Your task to perform on an android device: change the upload size in google photos Image 0: 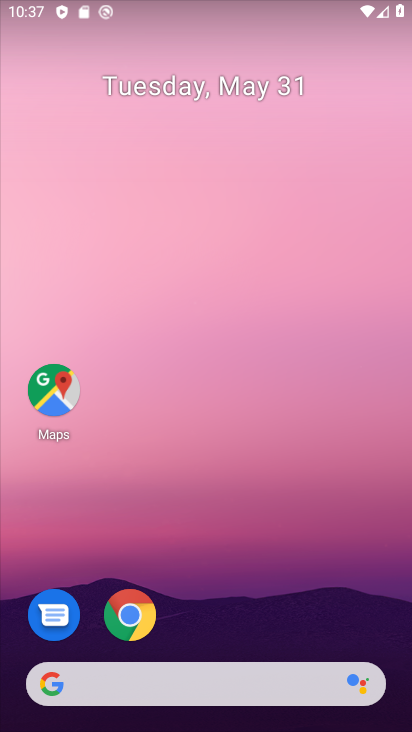
Step 0: drag from (210, 619) to (319, 75)
Your task to perform on an android device: change the upload size in google photos Image 1: 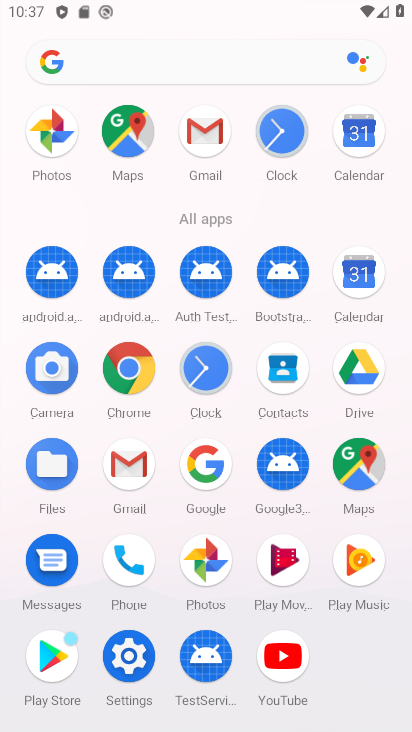
Step 1: click (209, 568)
Your task to perform on an android device: change the upload size in google photos Image 2: 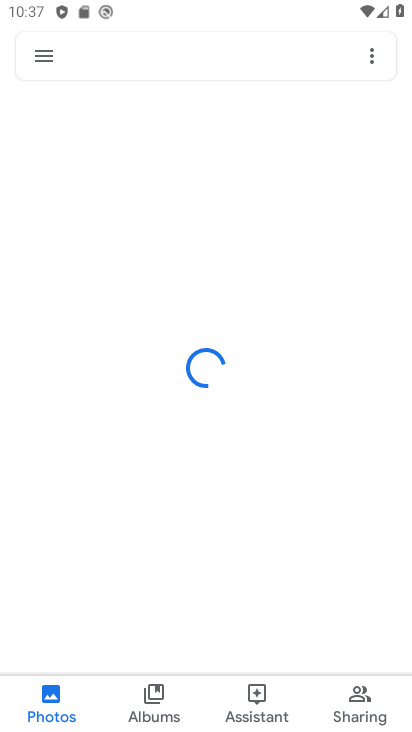
Step 2: click (40, 54)
Your task to perform on an android device: change the upload size in google photos Image 3: 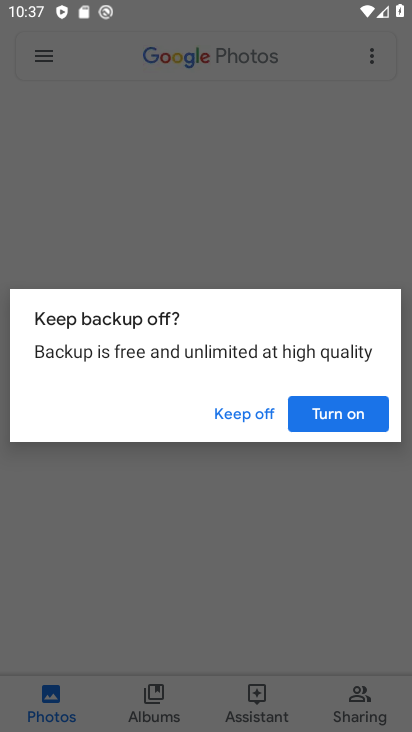
Step 3: click (328, 423)
Your task to perform on an android device: change the upload size in google photos Image 4: 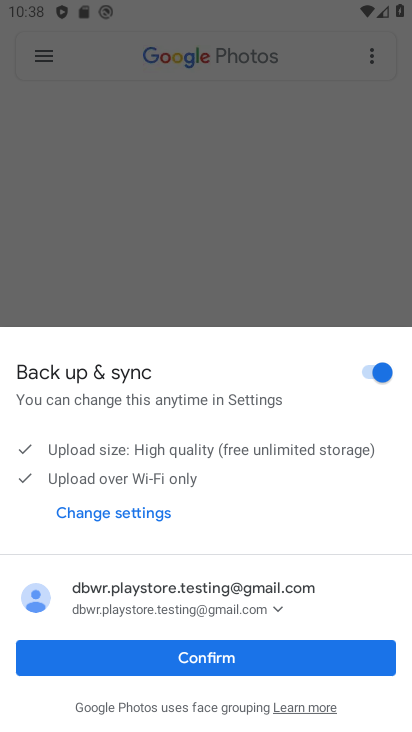
Step 4: click (205, 661)
Your task to perform on an android device: change the upload size in google photos Image 5: 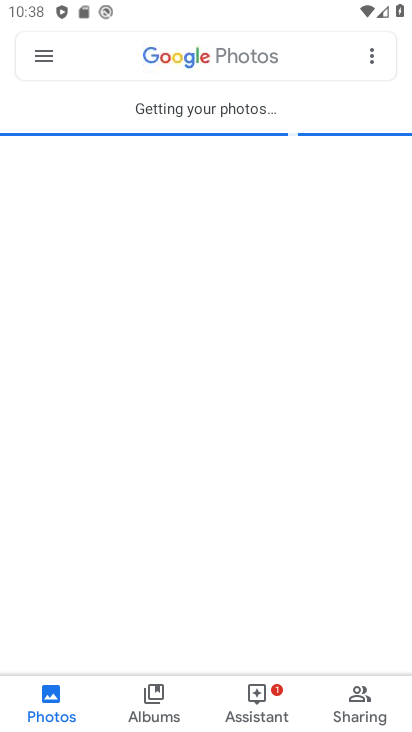
Step 5: click (50, 61)
Your task to perform on an android device: change the upload size in google photos Image 6: 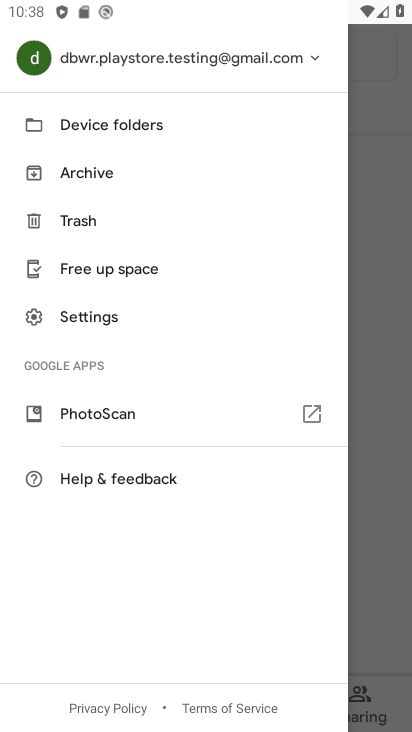
Step 6: click (155, 327)
Your task to perform on an android device: change the upload size in google photos Image 7: 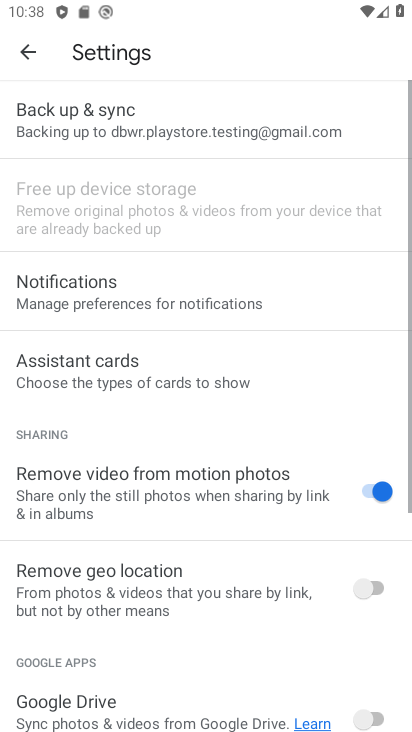
Step 7: click (206, 141)
Your task to perform on an android device: change the upload size in google photos Image 8: 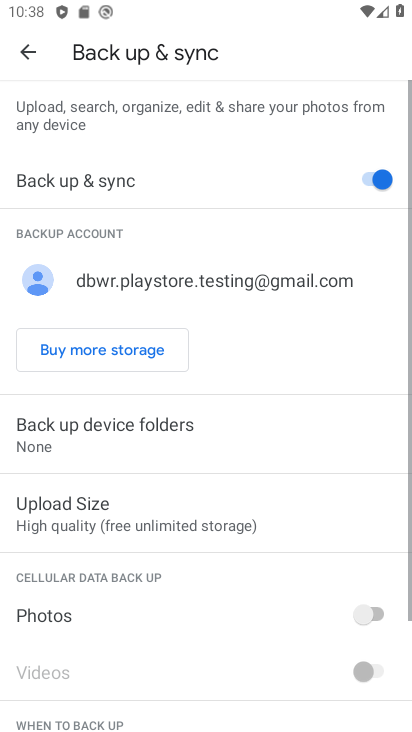
Step 8: drag from (181, 504) to (281, 137)
Your task to perform on an android device: change the upload size in google photos Image 9: 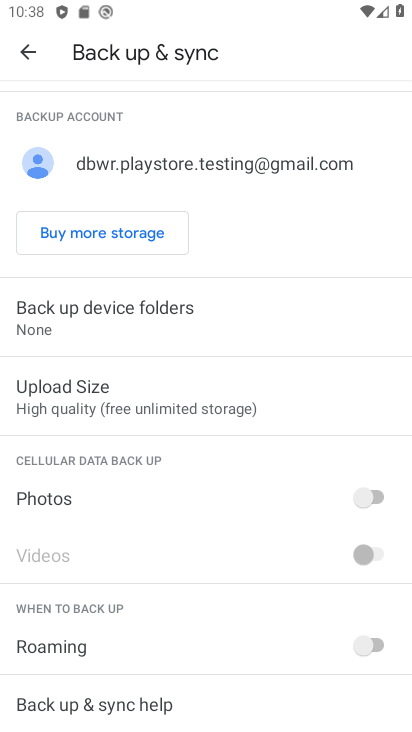
Step 9: click (85, 402)
Your task to perform on an android device: change the upload size in google photos Image 10: 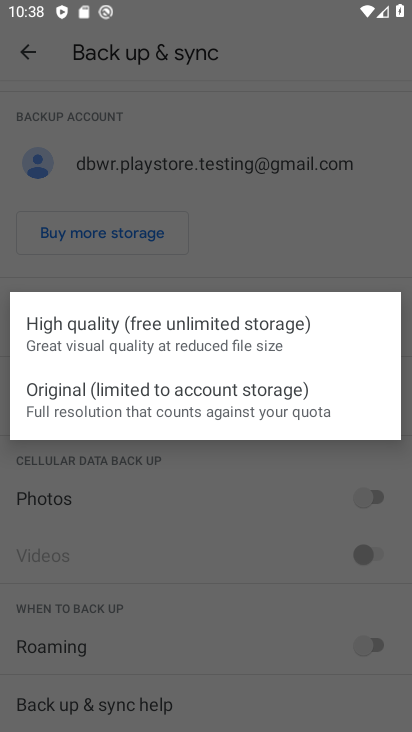
Step 10: click (100, 396)
Your task to perform on an android device: change the upload size in google photos Image 11: 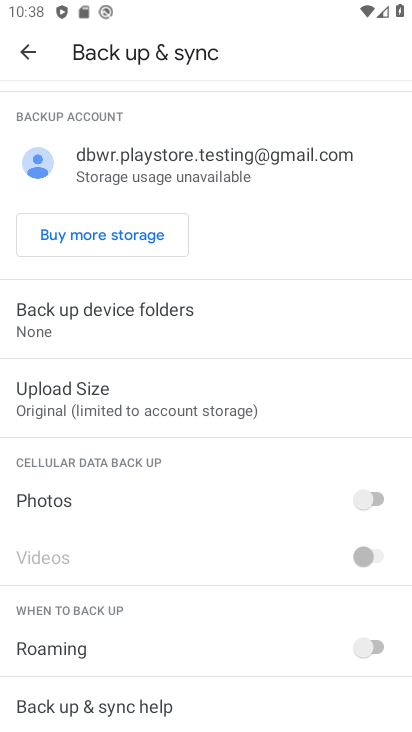
Step 11: task complete